Your task to perform on an android device: See recent photos Image 0: 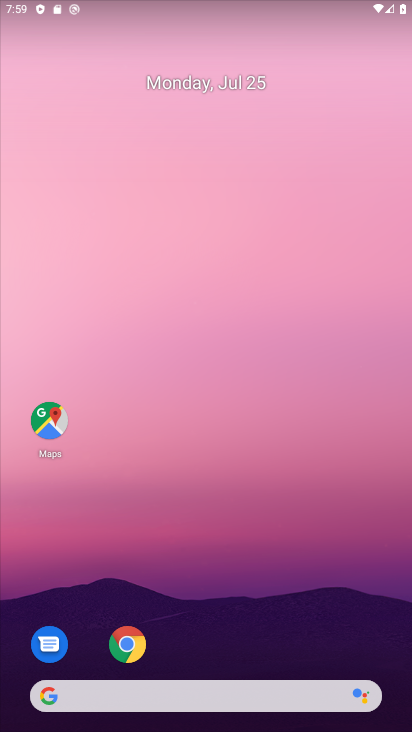
Step 0: drag from (239, 620) to (277, 9)
Your task to perform on an android device: See recent photos Image 1: 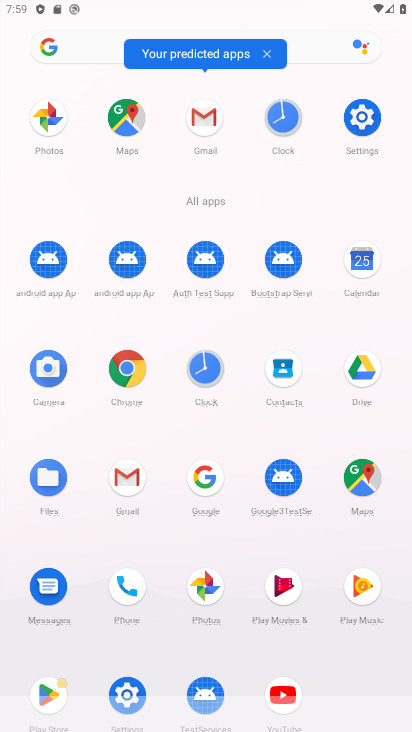
Step 1: click (204, 589)
Your task to perform on an android device: See recent photos Image 2: 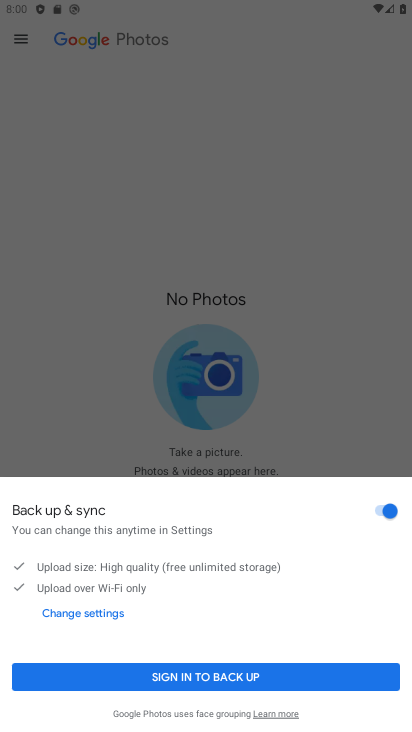
Step 2: click (228, 684)
Your task to perform on an android device: See recent photos Image 3: 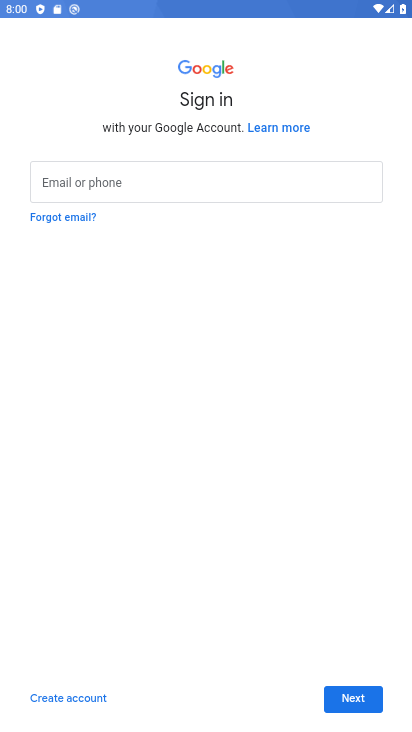
Step 3: task complete